Your task to perform on an android device: Show me popular videos on Youtube Image 0: 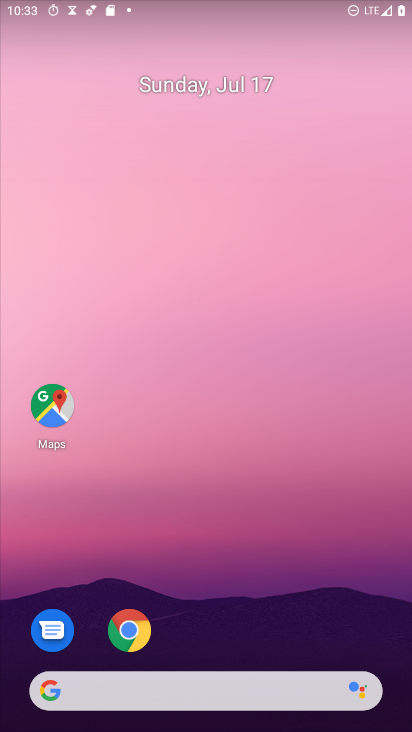
Step 0: drag from (199, 674) to (244, 16)
Your task to perform on an android device: Show me popular videos on Youtube Image 1: 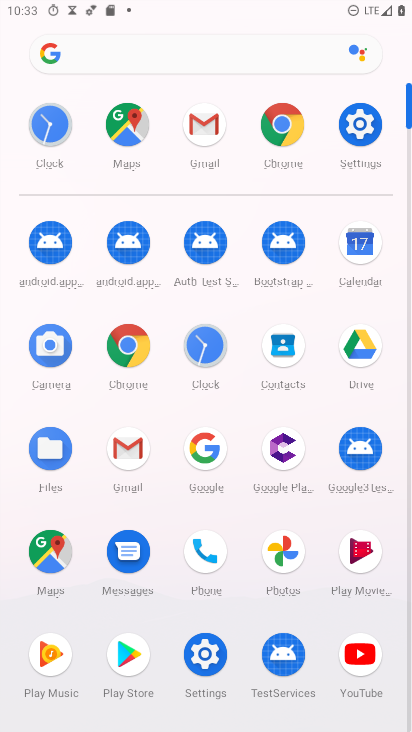
Step 1: click (358, 646)
Your task to perform on an android device: Show me popular videos on Youtube Image 2: 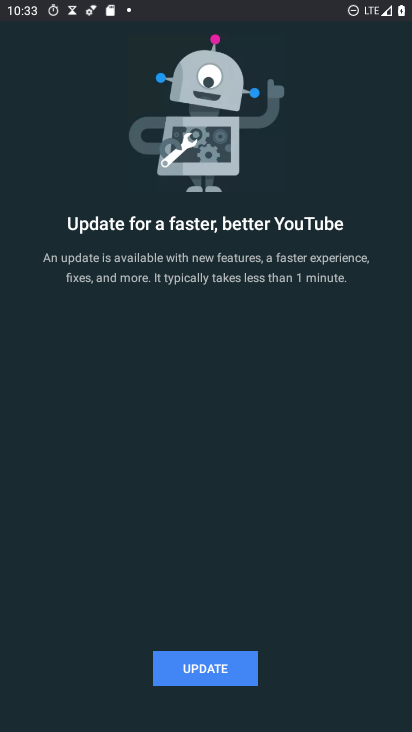
Step 2: click (209, 670)
Your task to perform on an android device: Show me popular videos on Youtube Image 3: 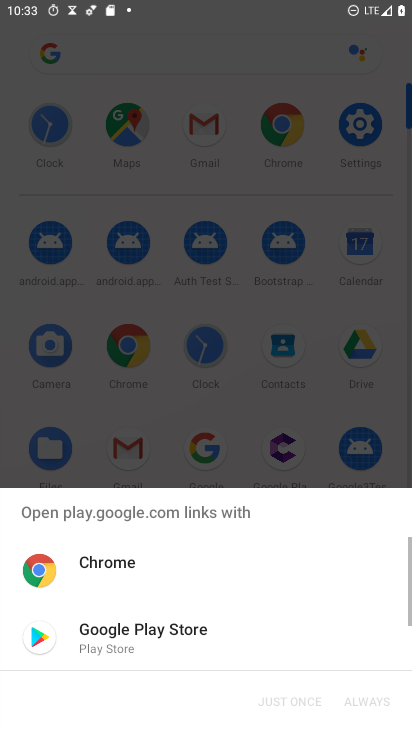
Step 3: click (106, 648)
Your task to perform on an android device: Show me popular videos on Youtube Image 4: 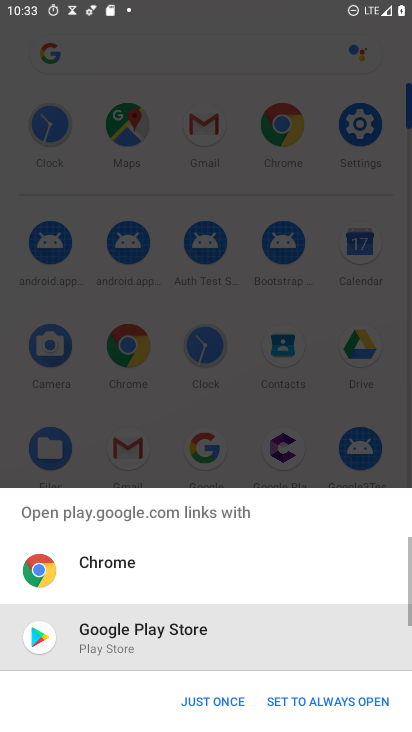
Step 4: click (210, 698)
Your task to perform on an android device: Show me popular videos on Youtube Image 5: 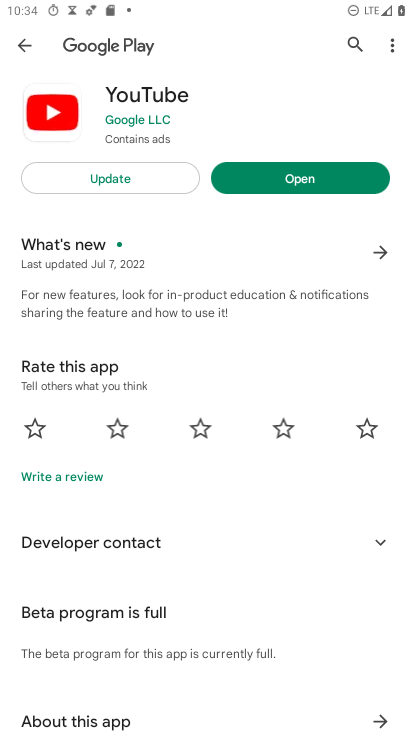
Step 5: click (159, 180)
Your task to perform on an android device: Show me popular videos on Youtube Image 6: 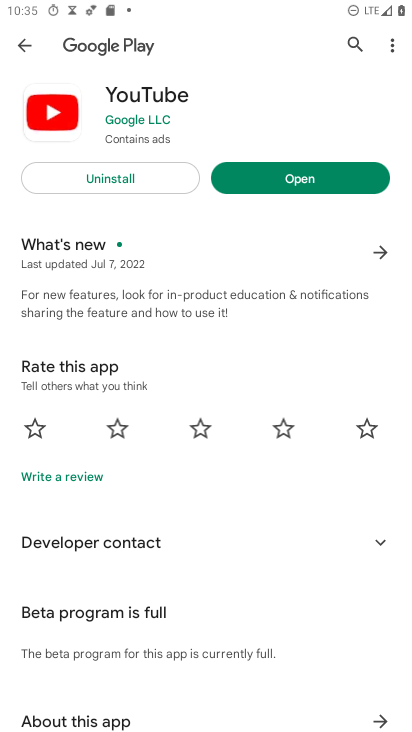
Step 6: click (308, 177)
Your task to perform on an android device: Show me popular videos on Youtube Image 7: 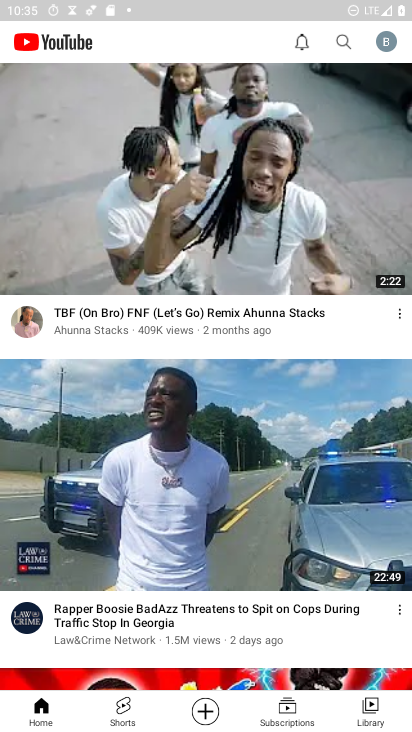
Step 7: task complete